Your task to perform on an android device: check out phone information Image 0: 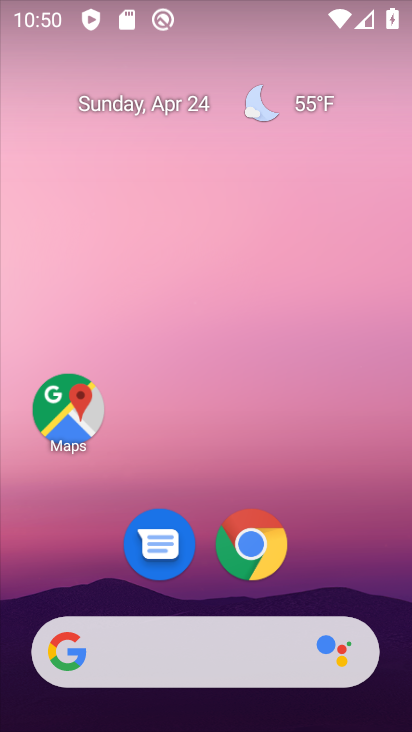
Step 0: drag from (354, 519) to (311, 183)
Your task to perform on an android device: check out phone information Image 1: 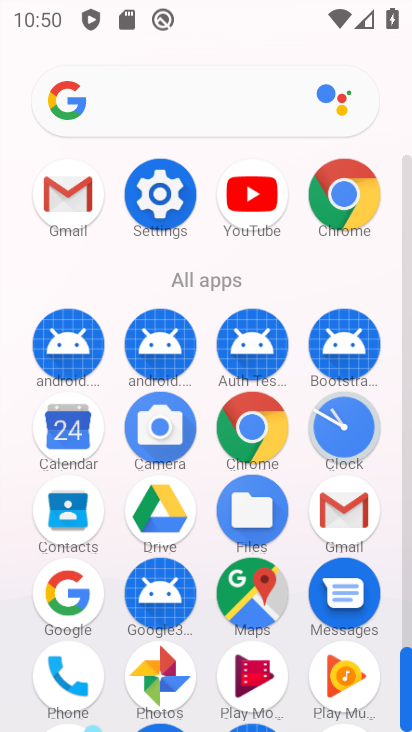
Step 1: click (71, 683)
Your task to perform on an android device: check out phone information Image 2: 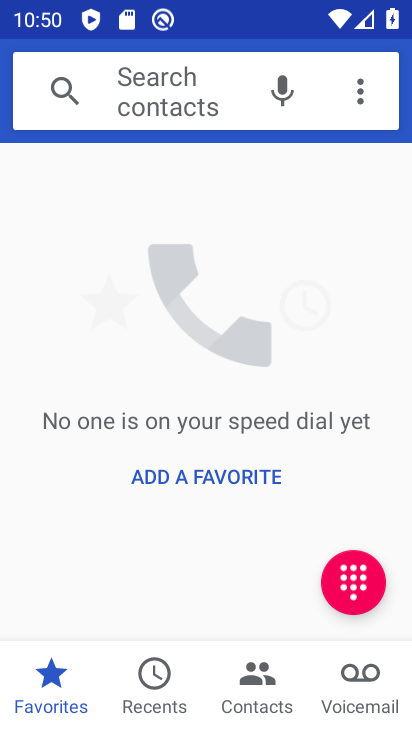
Step 2: click (359, 89)
Your task to perform on an android device: check out phone information Image 3: 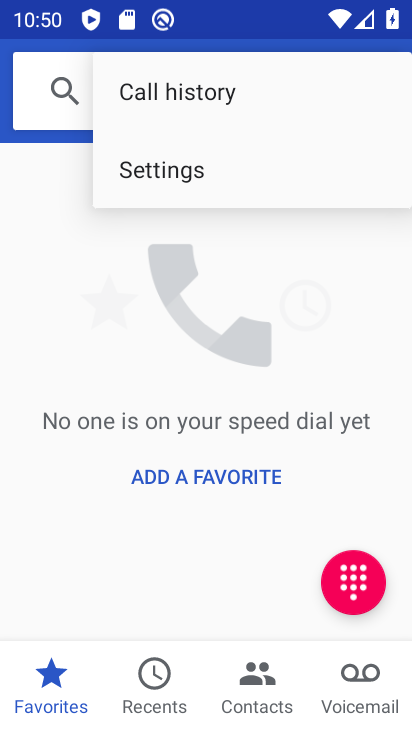
Step 3: click (171, 171)
Your task to perform on an android device: check out phone information Image 4: 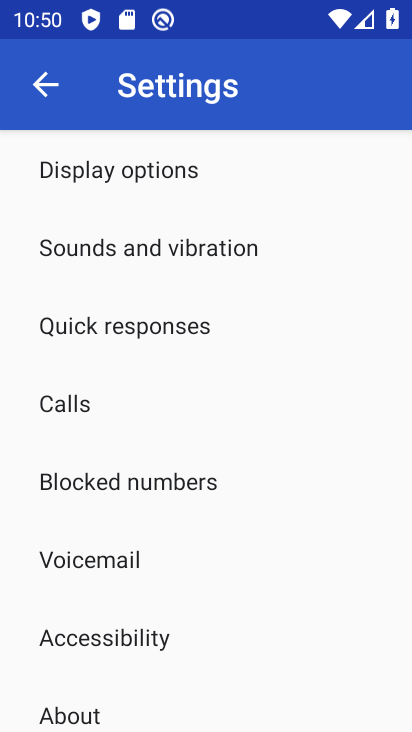
Step 4: click (77, 712)
Your task to perform on an android device: check out phone information Image 5: 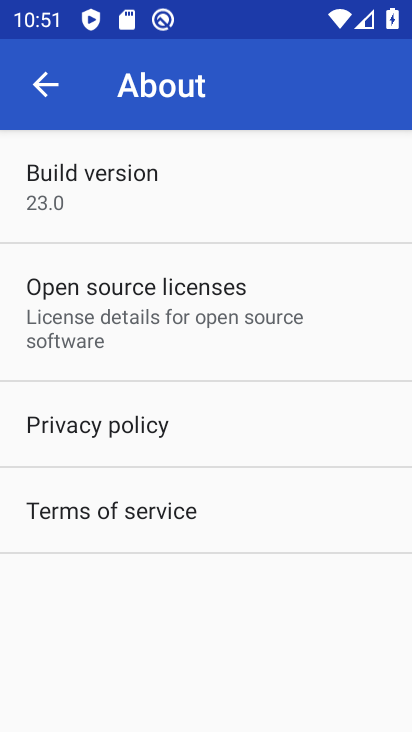
Step 5: task complete